Your task to perform on an android device: uninstall "Google Sheets" Image 0: 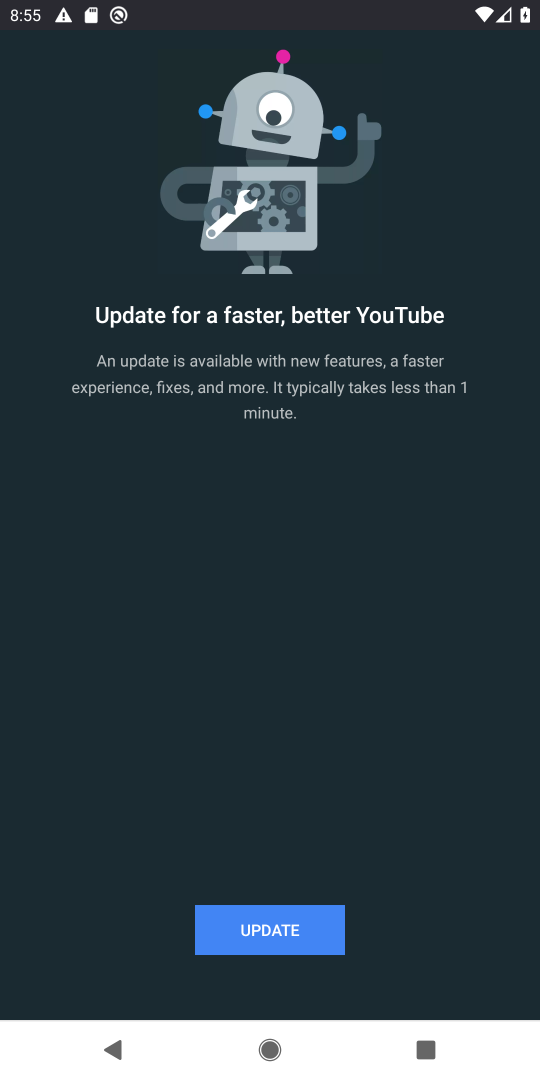
Step 0: press home button
Your task to perform on an android device: uninstall "Google Sheets" Image 1: 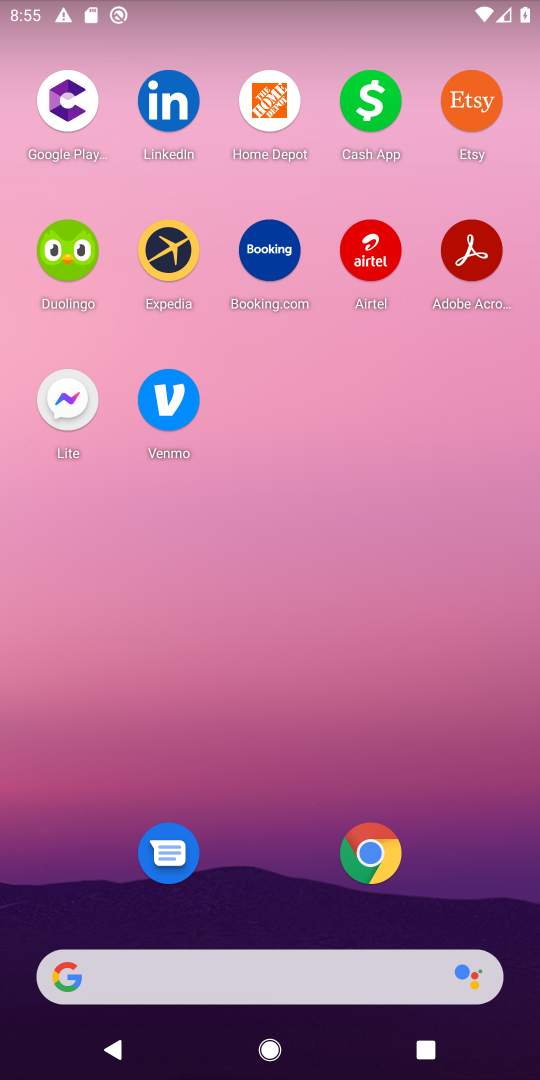
Step 1: drag from (278, 852) to (244, 344)
Your task to perform on an android device: uninstall "Google Sheets" Image 2: 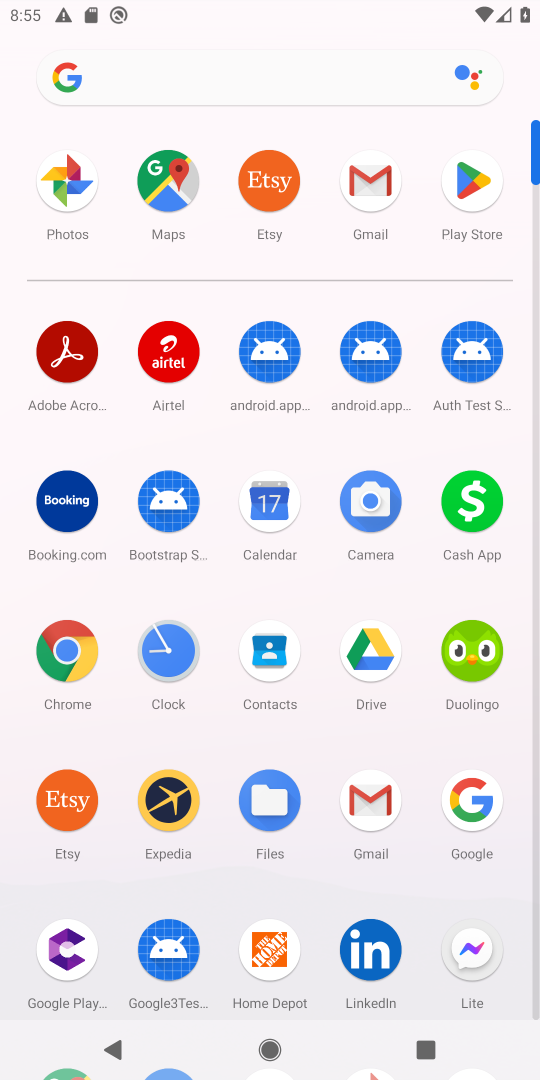
Step 2: click (468, 195)
Your task to perform on an android device: uninstall "Google Sheets" Image 3: 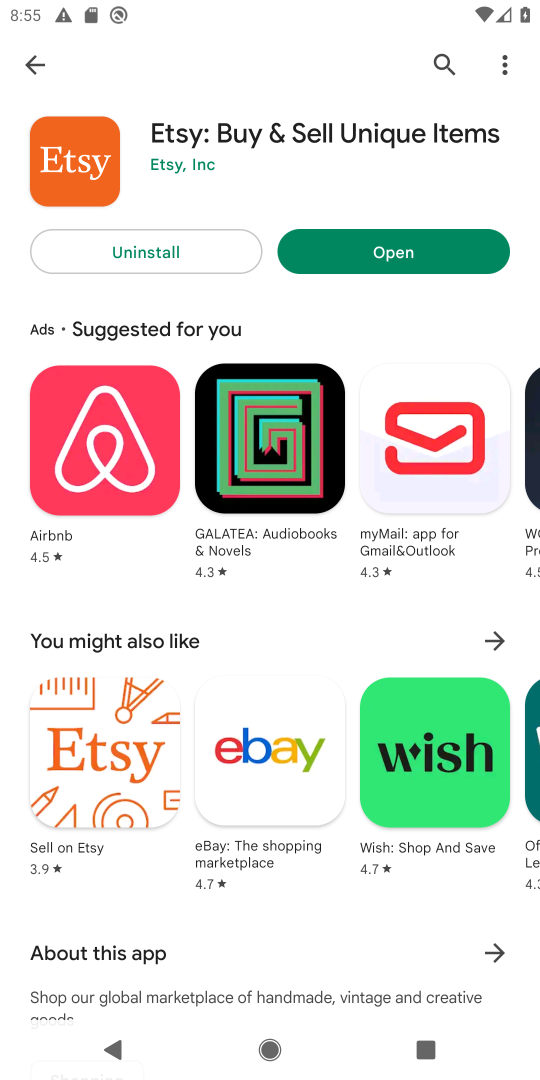
Step 3: click (427, 60)
Your task to perform on an android device: uninstall "Google Sheets" Image 4: 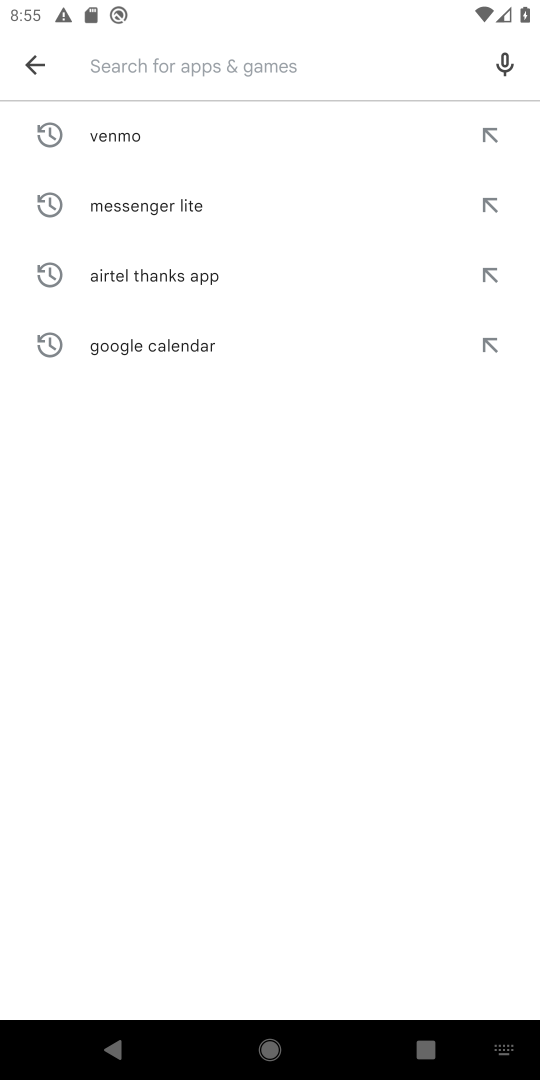
Step 4: type "Google Sheets"
Your task to perform on an android device: uninstall "Google Sheets" Image 5: 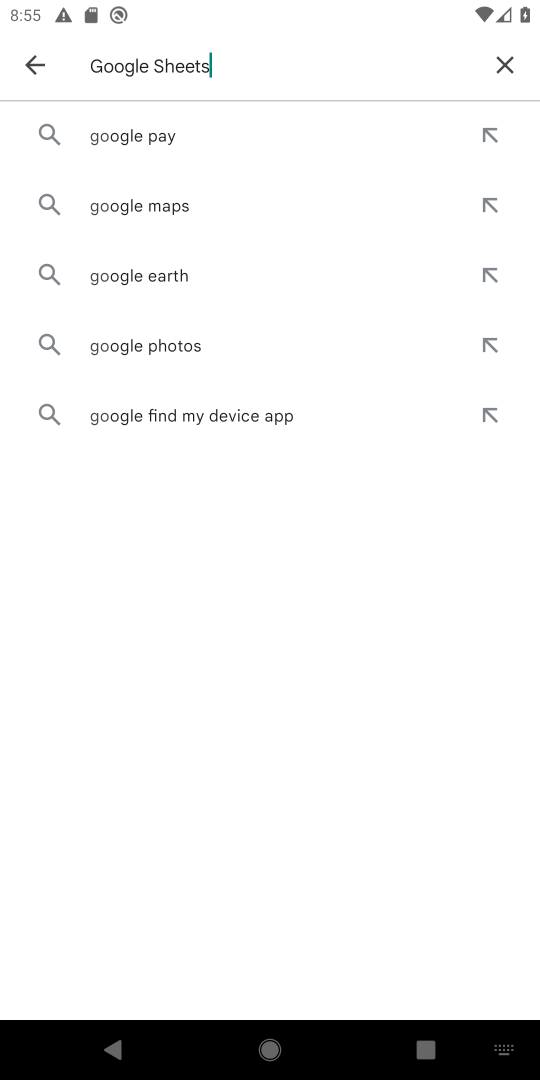
Step 5: type ""
Your task to perform on an android device: uninstall "Google Sheets" Image 6: 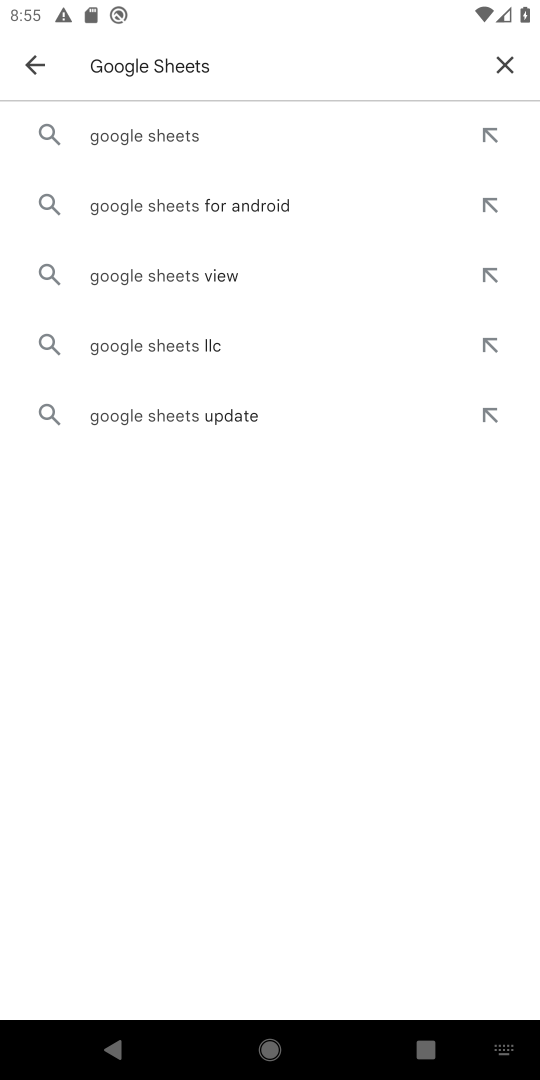
Step 6: click (212, 148)
Your task to perform on an android device: uninstall "Google Sheets" Image 7: 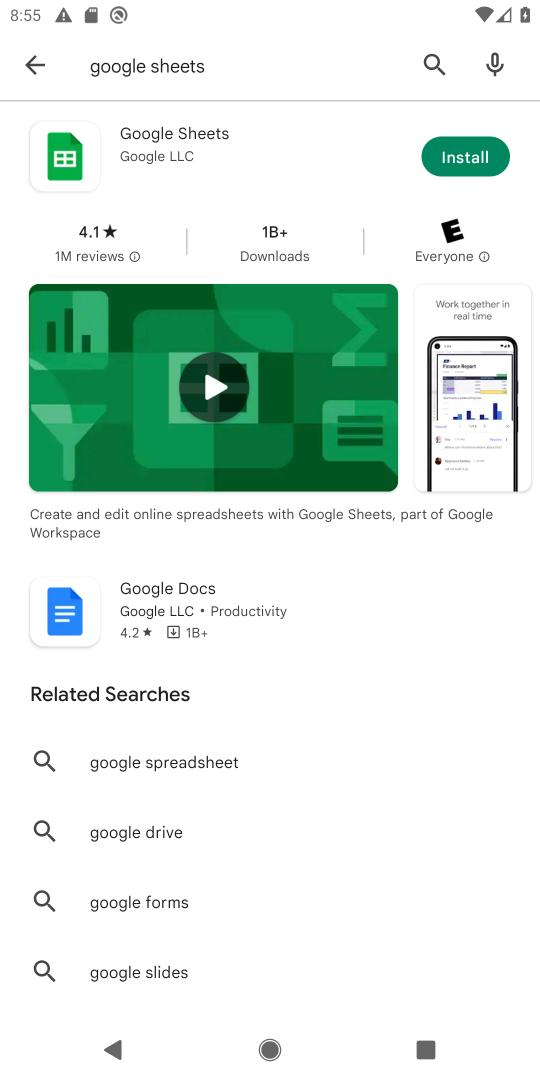
Step 7: task complete